Your task to perform on an android device: Open the clock Image 0: 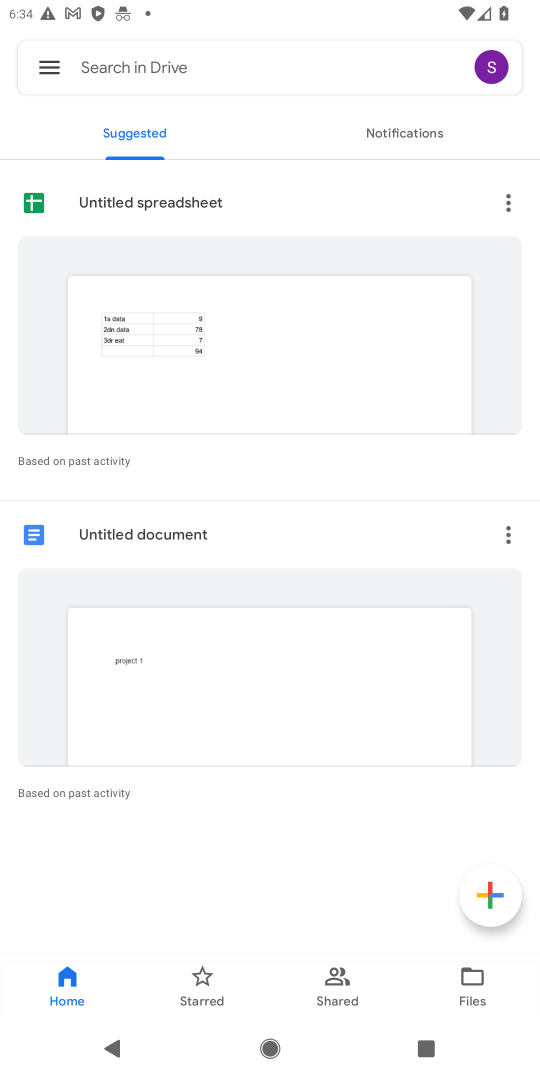
Step 0: press home button
Your task to perform on an android device: Open the clock Image 1: 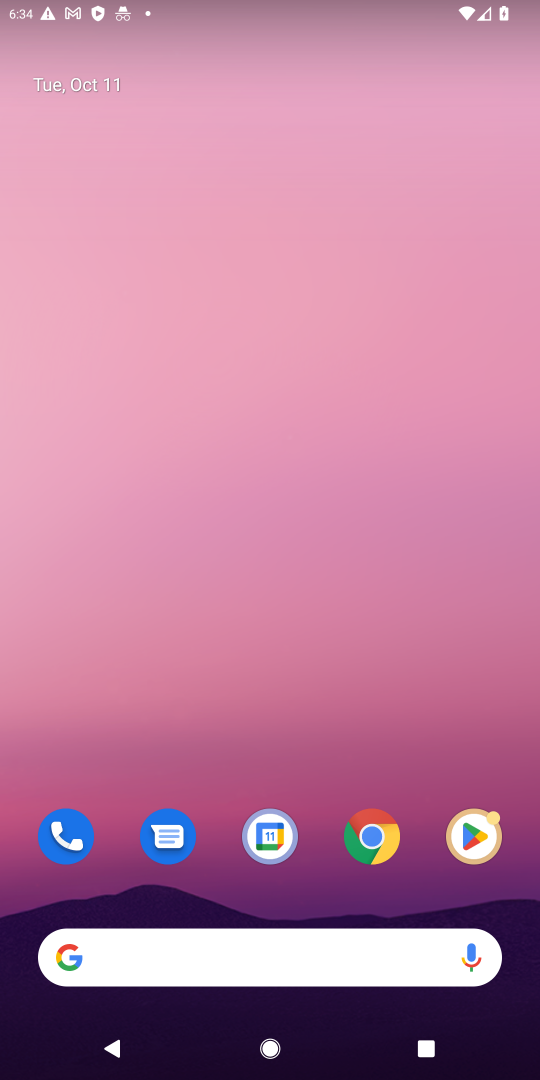
Step 1: drag from (421, 893) to (366, 79)
Your task to perform on an android device: Open the clock Image 2: 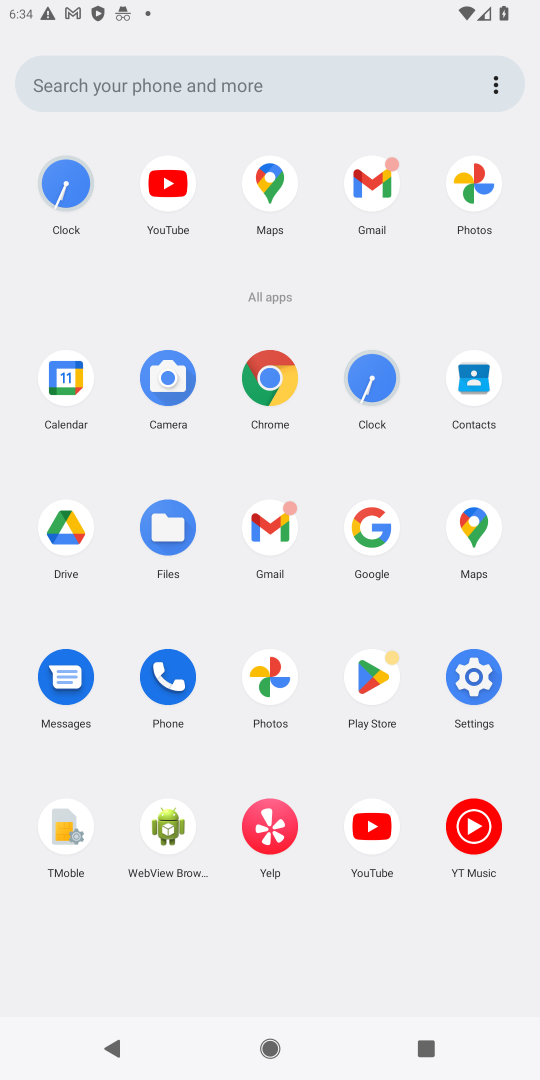
Step 2: click (370, 380)
Your task to perform on an android device: Open the clock Image 3: 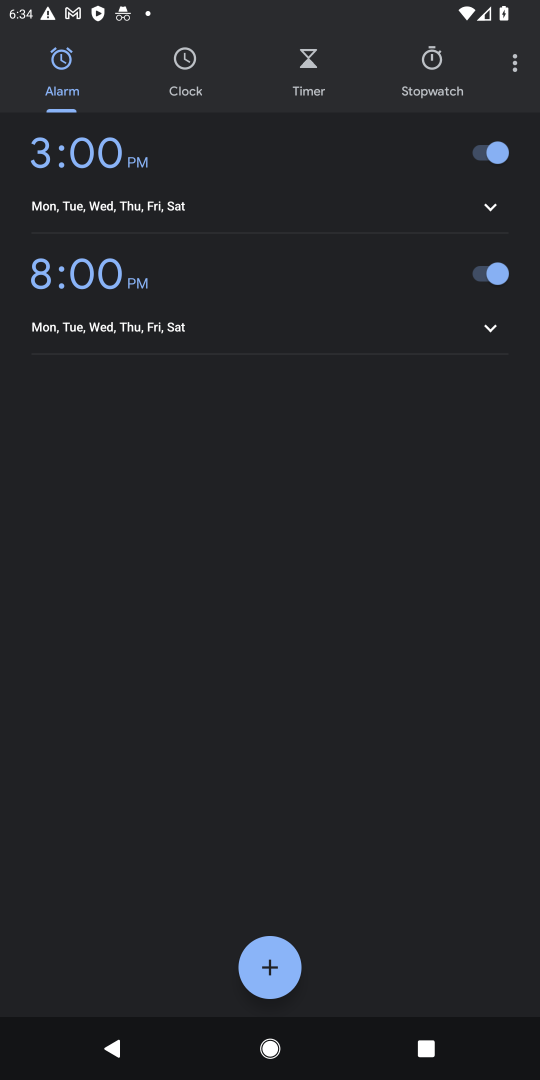
Step 3: click (185, 59)
Your task to perform on an android device: Open the clock Image 4: 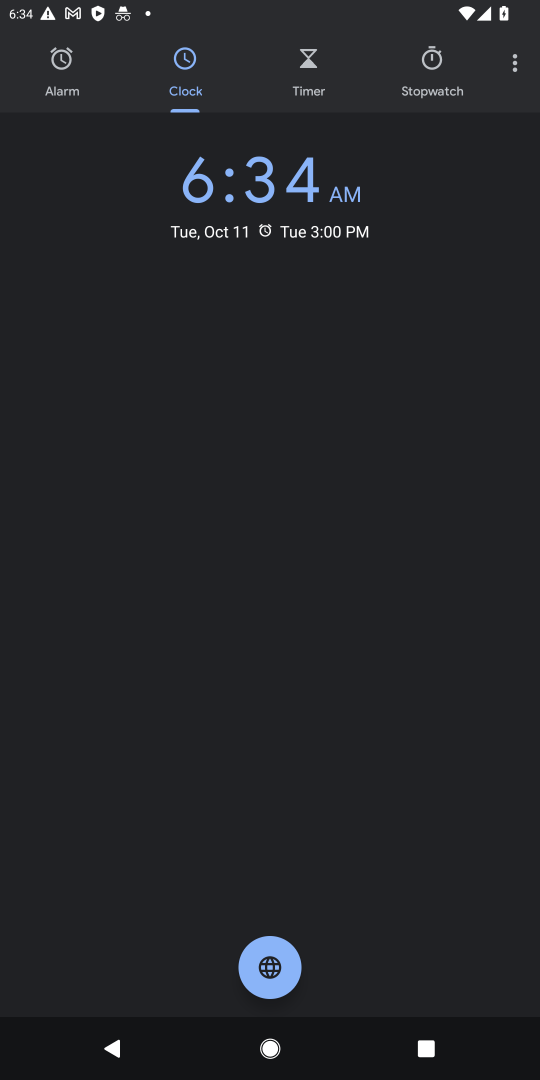
Step 4: task complete